Your task to perform on an android device: Go to battery settings Image 0: 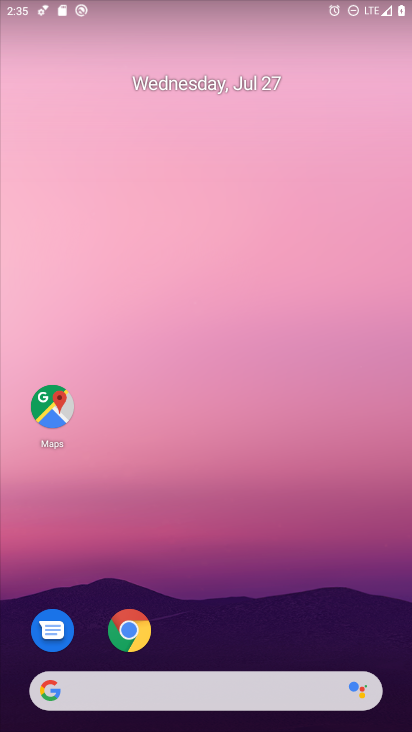
Step 0: drag from (377, 636) to (332, 54)
Your task to perform on an android device: Go to battery settings Image 1: 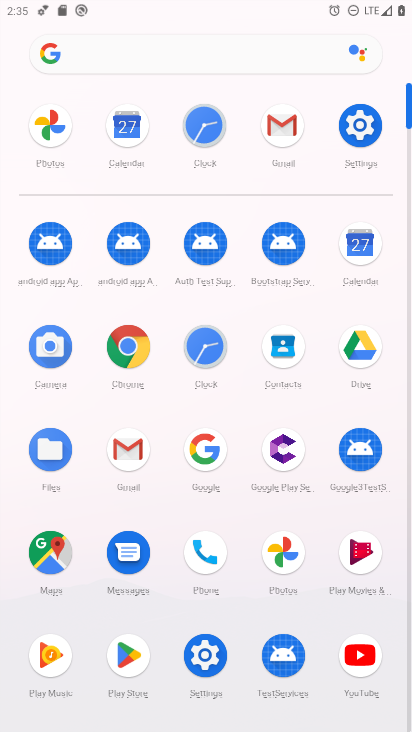
Step 1: click (205, 654)
Your task to perform on an android device: Go to battery settings Image 2: 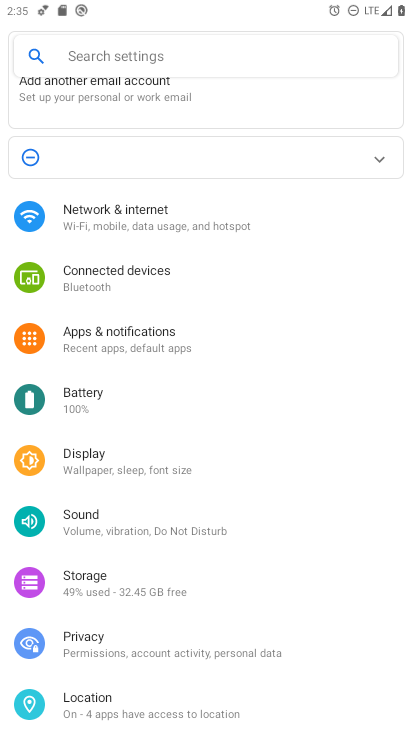
Step 2: click (80, 394)
Your task to perform on an android device: Go to battery settings Image 3: 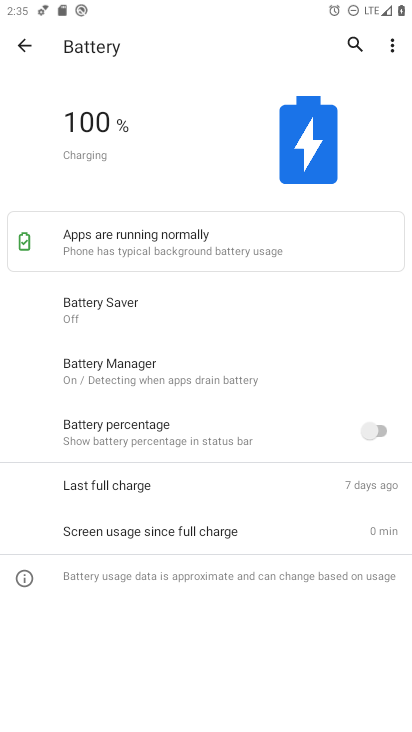
Step 3: task complete